Your task to perform on an android device: turn vacation reply on in the gmail app Image 0: 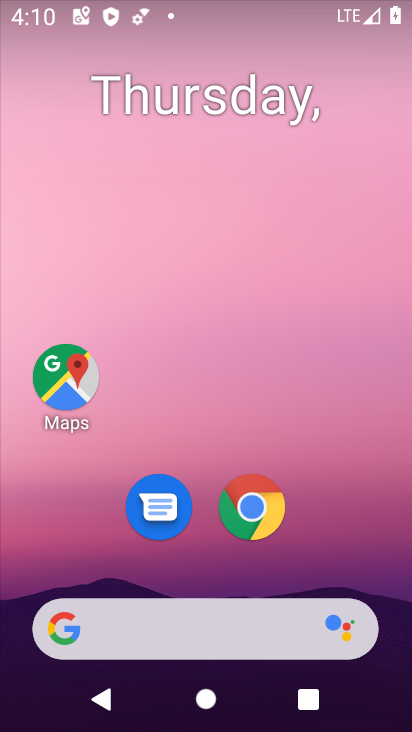
Step 0: click (345, 531)
Your task to perform on an android device: turn vacation reply on in the gmail app Image 1: 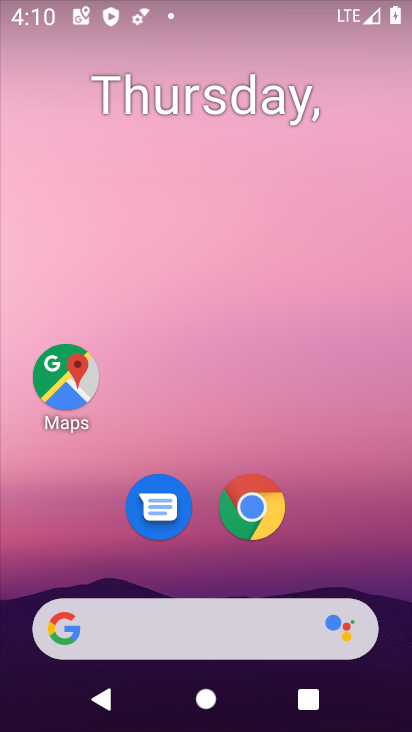
Step 1: drag from (345, 512) to (319, 71)
Your task to perform on an android device: turn vacation reply on in the gmail app Image 2: 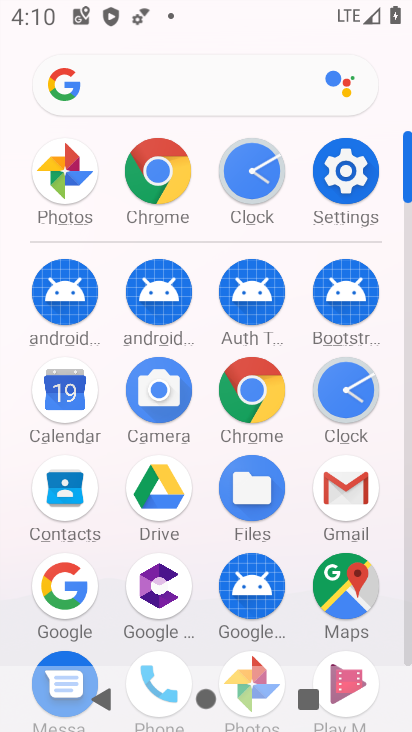
Step 2: click (322, 508)
Your task to perform on an android device: turn vacation reply on in the gmail app Image 3: 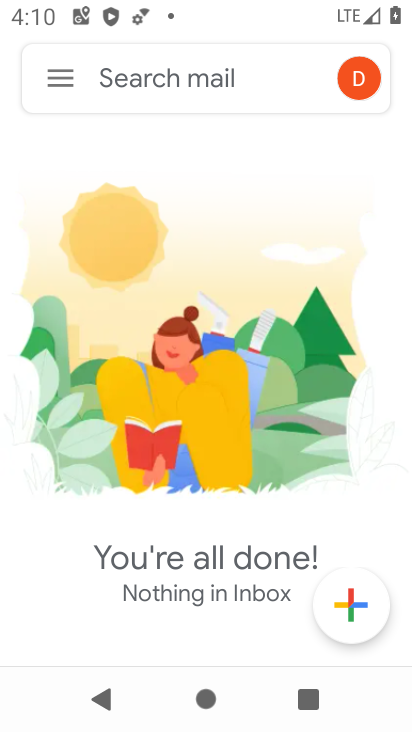
Step 3: click (53, 66)
Your task to perform on an android device: turn vacation reply on in the gmail app Image 4: 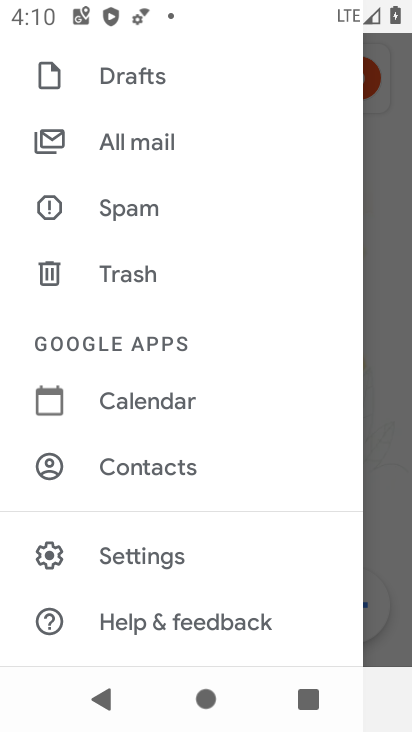
Step 4: click (138, 553)
Your task to perform on an android device: turn vacation reply on in the gmail app Image 5: 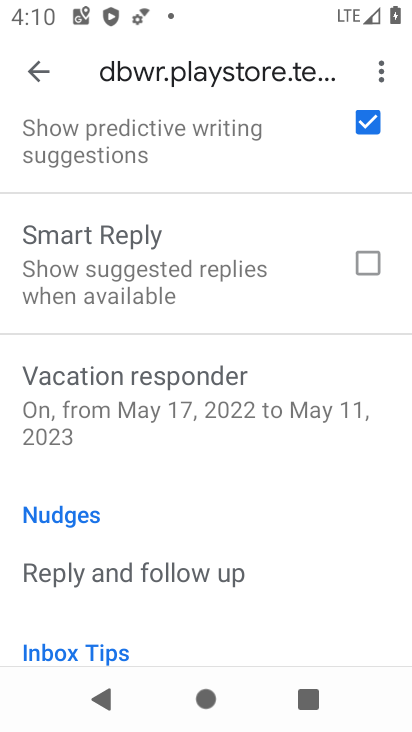
Step 5: click (131, 388)
Your task to perform on an android device: turn vacation reply on in the gmail app Image 6: 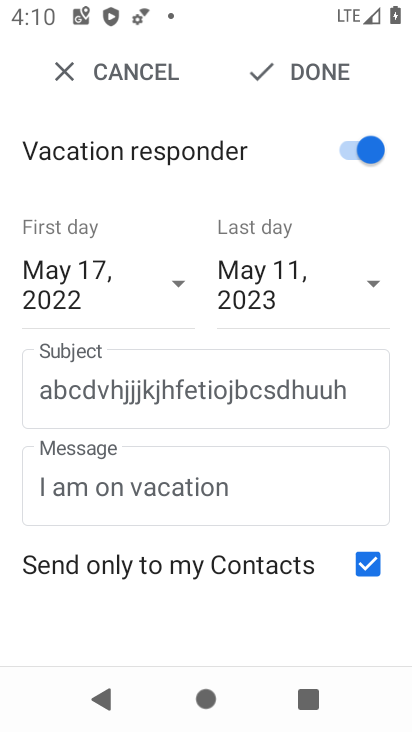
Step 6: click (173, 285)
Your task to perform on an android device: turn vacation reply on in the gmail app Image 7: 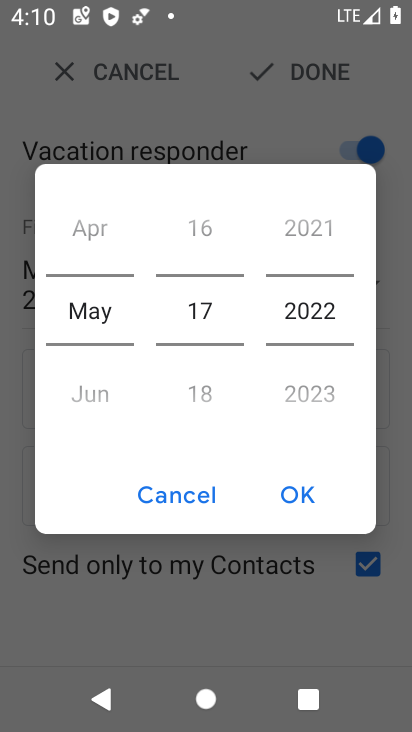
Step 7: drag from (193, 339) to (247, 89)
Your task to perform on an android device: turn vacation reply on in the gmail app Image 8: 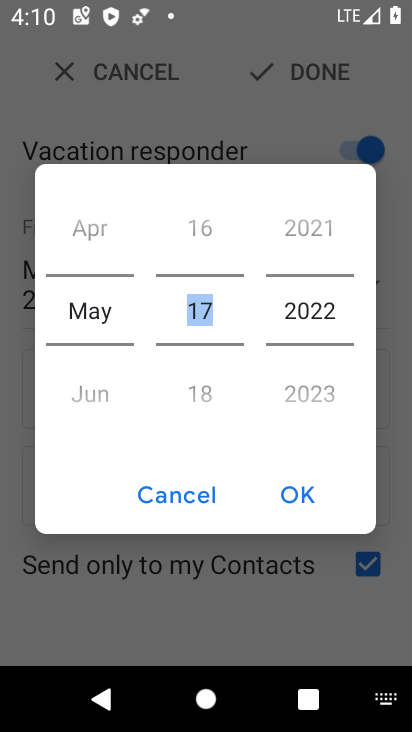
Step 8: drag from (205, 396) to (228, 158)
Your task to perform on an android device: turn vacation reply on in the gmail app Image 9: 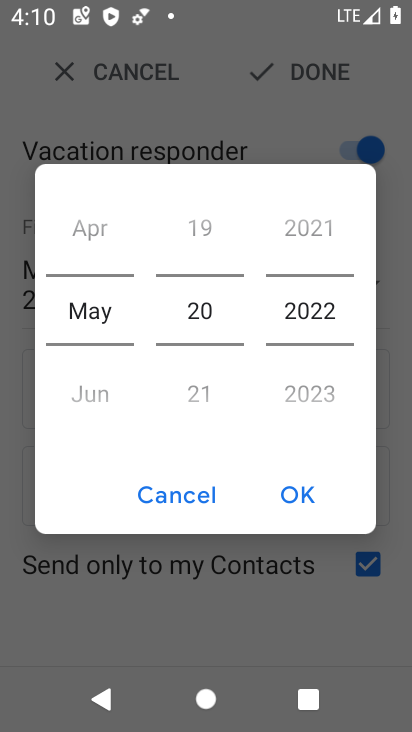
Step 9: drag from (199, 310) to (205, 418)
Your task to perform on an android device: turn vacation reply on in the gmail app Image 10: 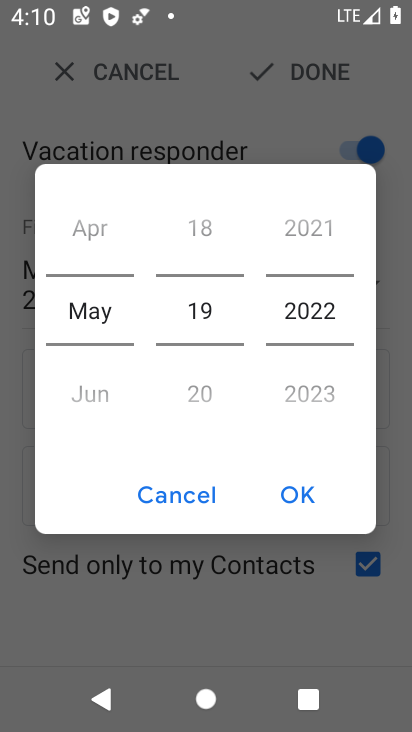
Step 10: click (301, 497)
Your task to perform on an android device: turn vacation reply on in the gmail app Image 11: 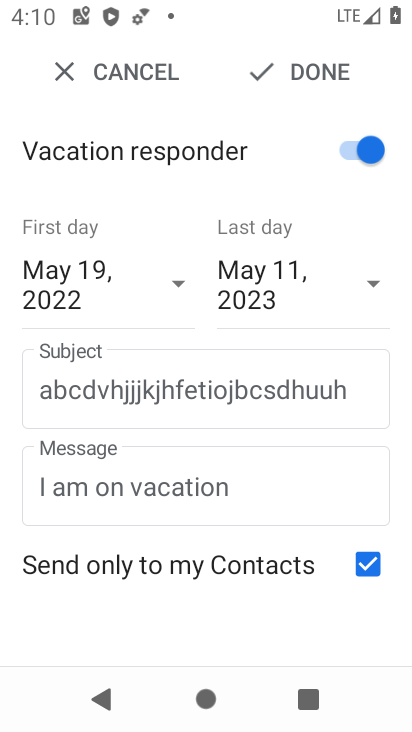
Step 11: click (301, 74)
Your task to perform on an android device: turn vacation reply on in the gmail app Image 12: 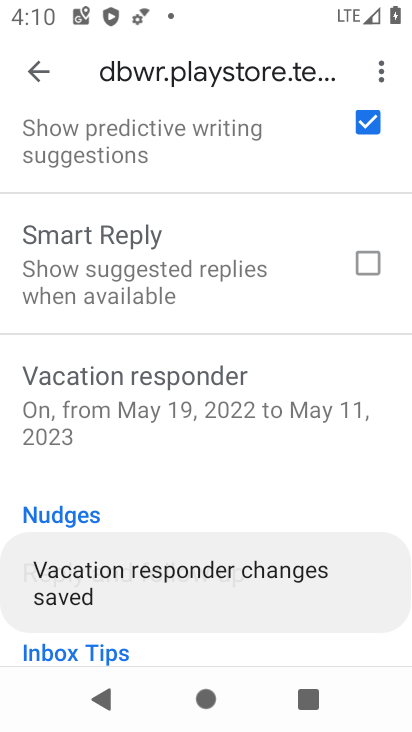
Step 12: task complete